Your task to perform on an android device: open app "Venmo" (install if not already installed) and enter user name: "bleedings@gmail.com" and password: "copied" Image 0: 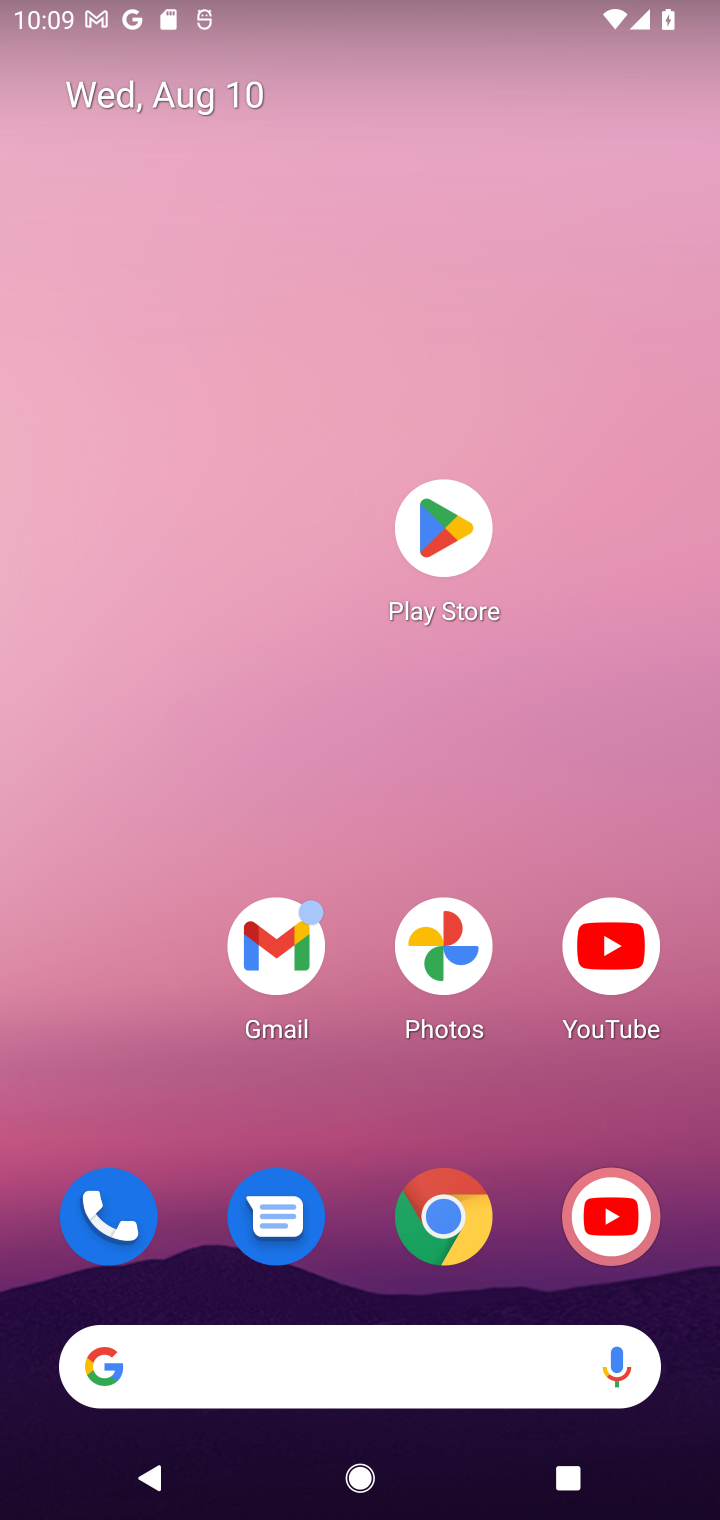
Step 0: click (446, 526)
Your task to perform on an android device: open app "Venmo" (install if not already installed) and enter user name: "bleedings@gmail.com" and password: "copied" Image 1: 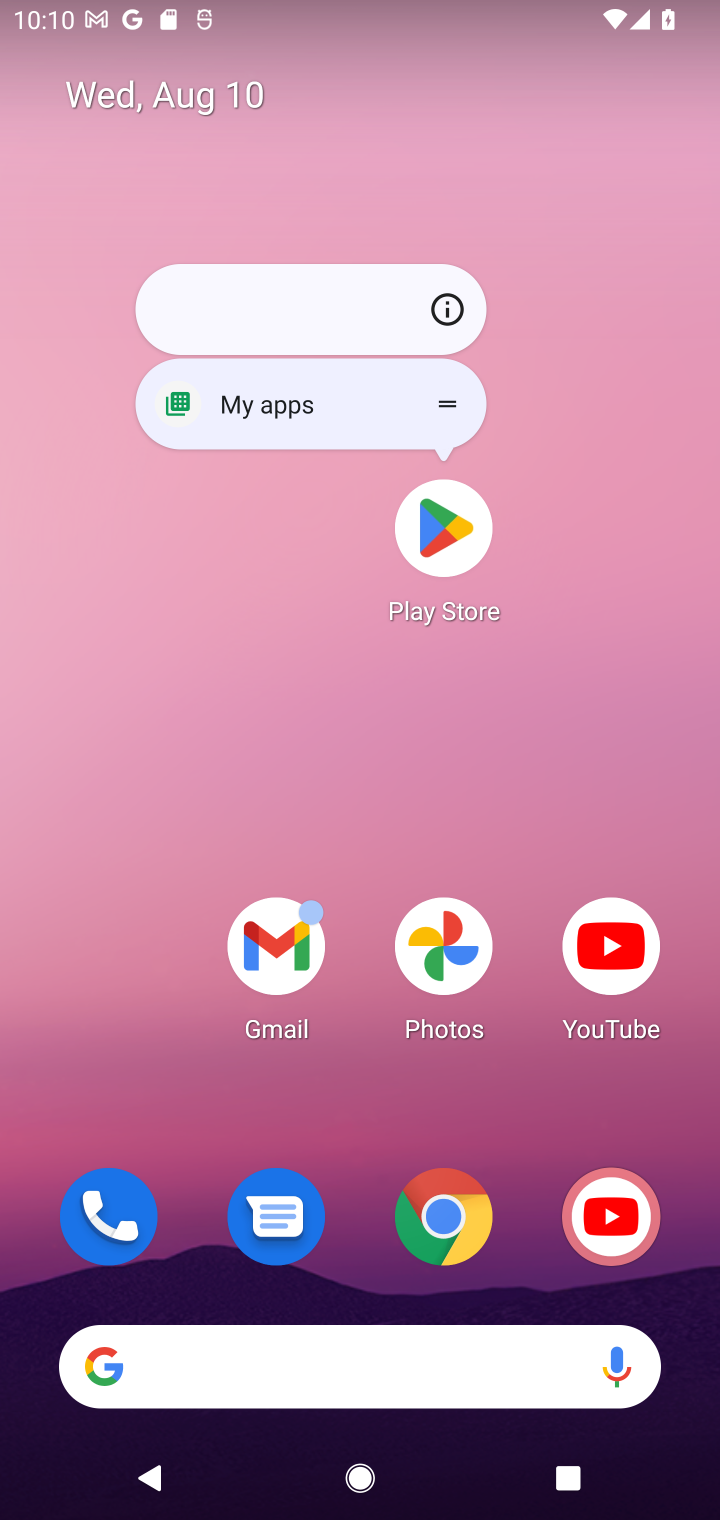
Step 1: click (446, 526)
Your task to perform on an android device: open app "Venmo" (install if not already installed) and enter user name: "bleedings@gmail.com" and password: "copied" Image 2: 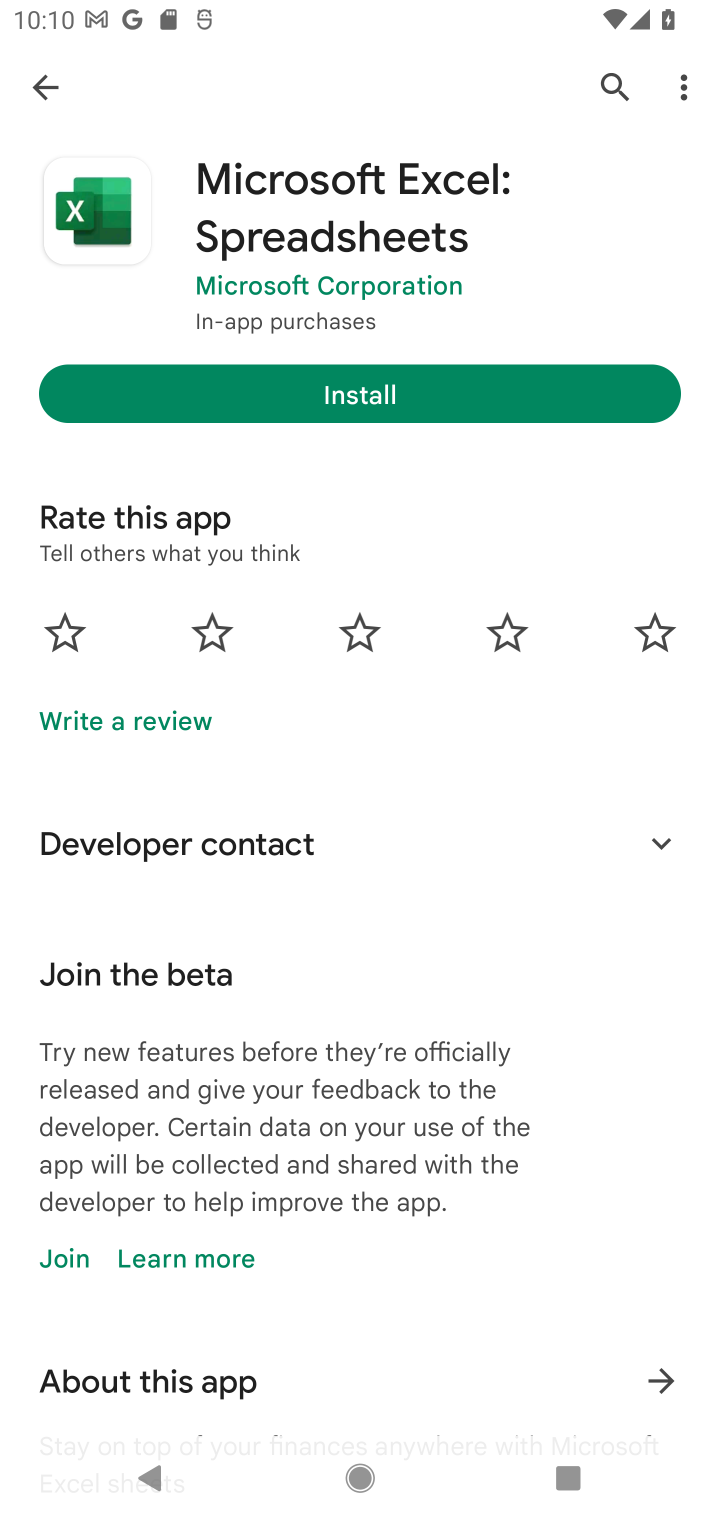
Step 2: click (607, 77)
Your task to perform on an android device: open app "Venmo" (install if not already installed) and enter user name: "bleedings@gmail.com" and password: "copied" Image 3: 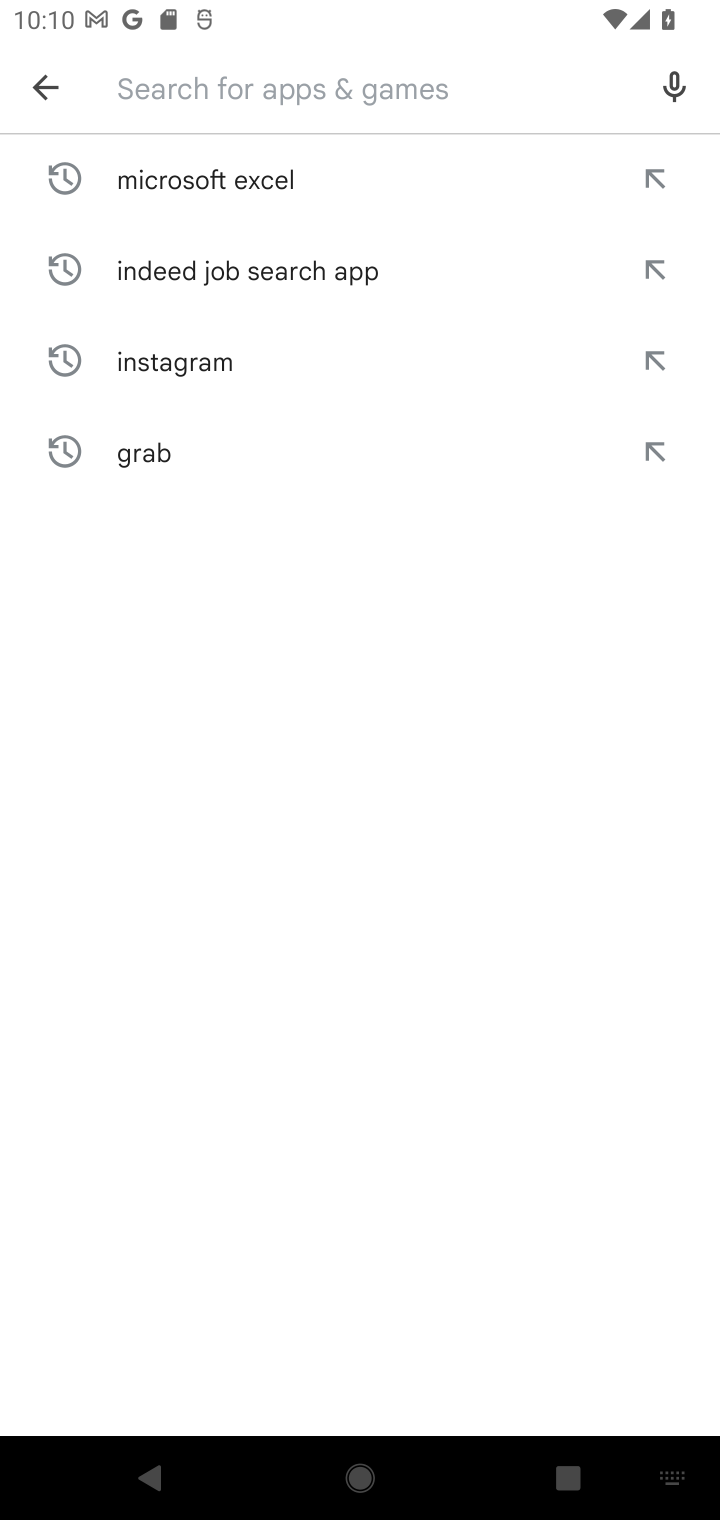
Step 3: type "Venmo"
Your task to perform on an android device: open app "Venmo" (install if not already installed) and enter user name: "bleedings@gmail.com" and password: "copied" Image 4: 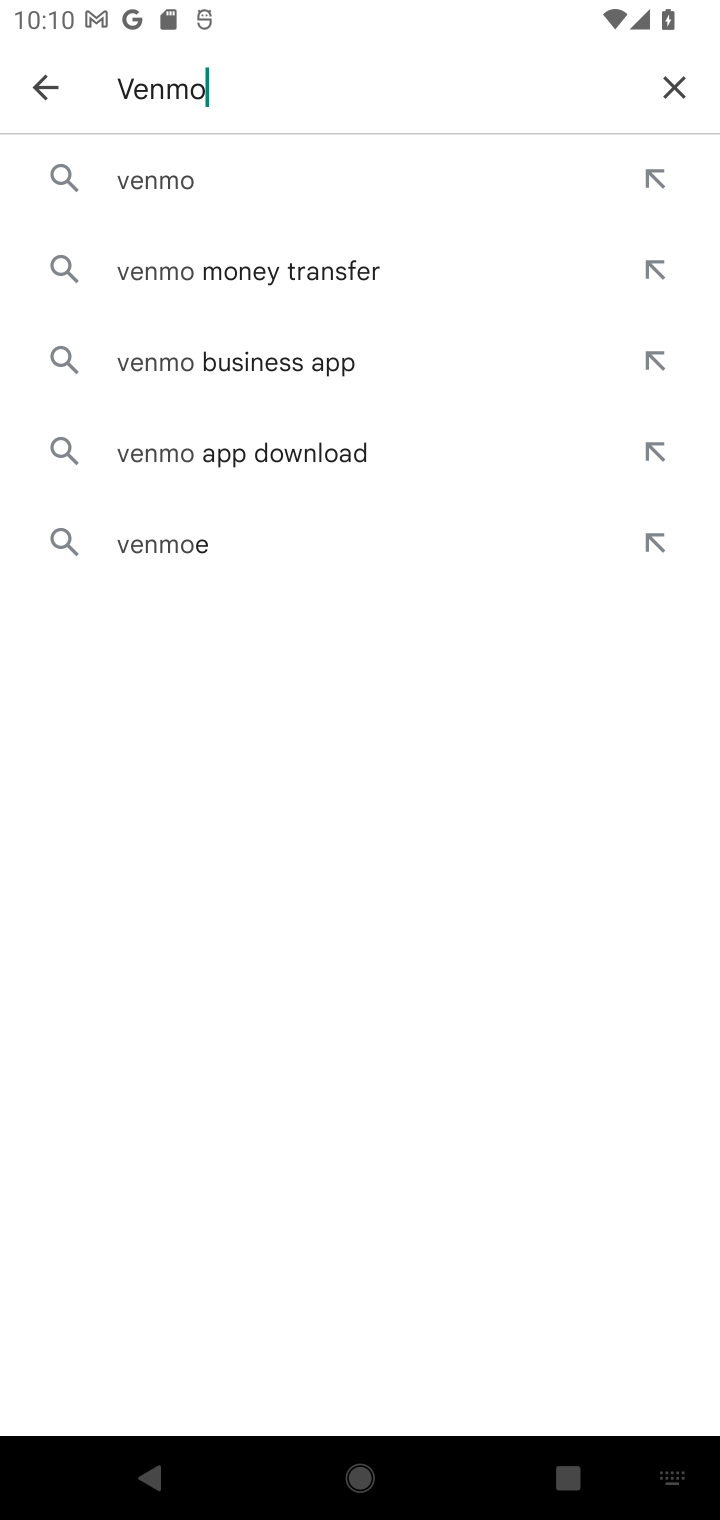
Step 4: click (180, 172)
Your task to perform on an android device: open app "Venmo" (install if not already installed) and enter user name: "bleedings@gmail.com" and password: "copied" Image 5: 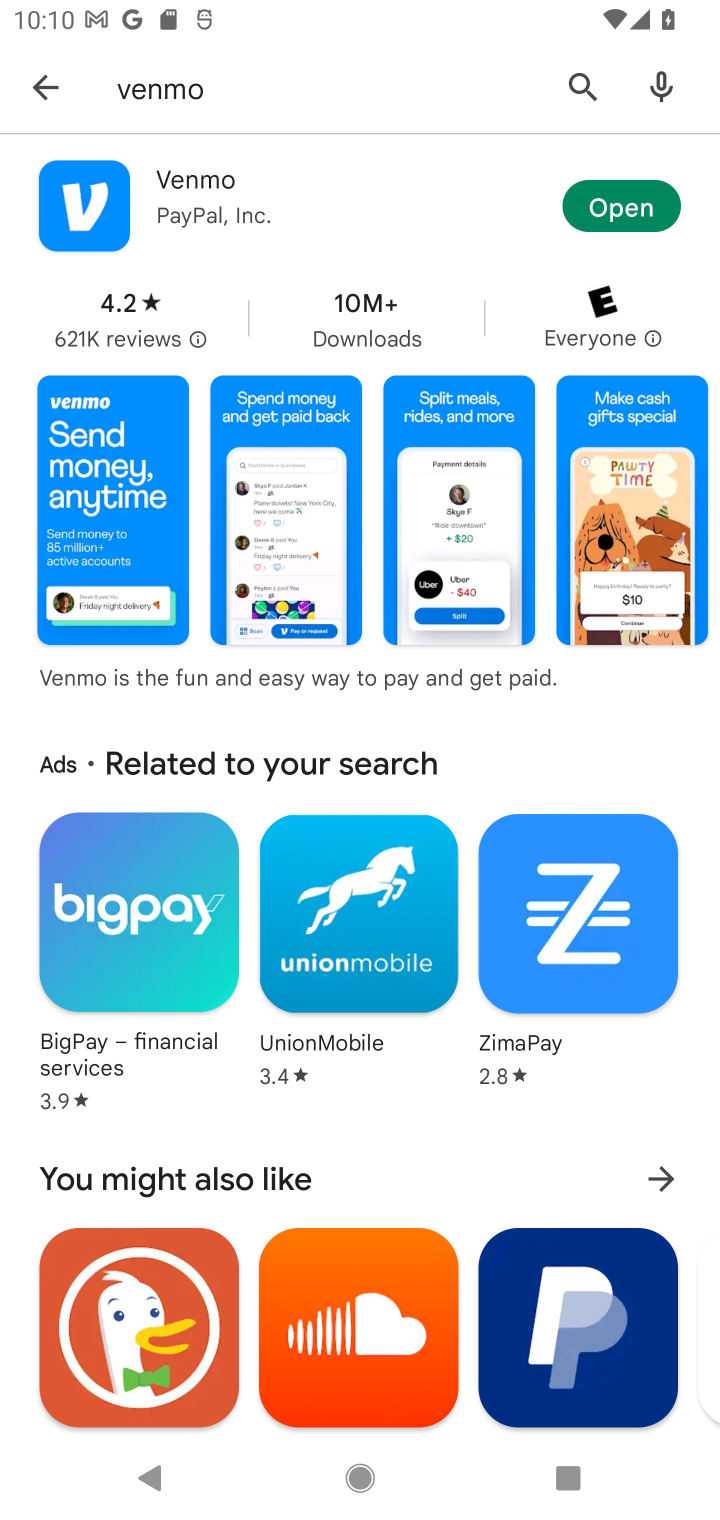
Step 5: click (618, 206)
Your task to perform on an android device: open app "Venmo" (install if not already installed) and enter user name: "bleedings@gmail.com" and password: "copied" Image 6: 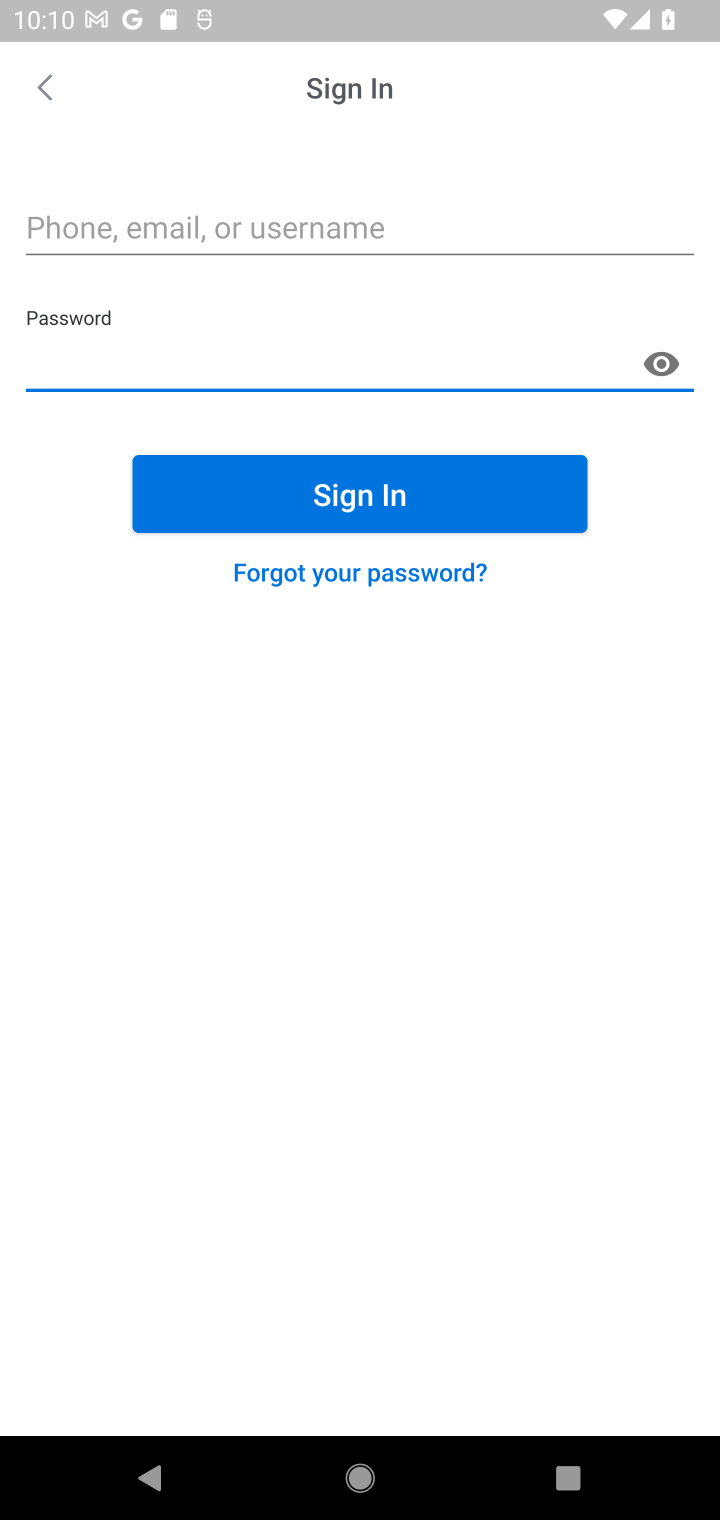
Step 6: click (129, 215)
Your task to perform on an android device: open app "Venmo" (install if not already installed) and enter user name: "bleedings@gmail.com" and password: "copied" Image 7: 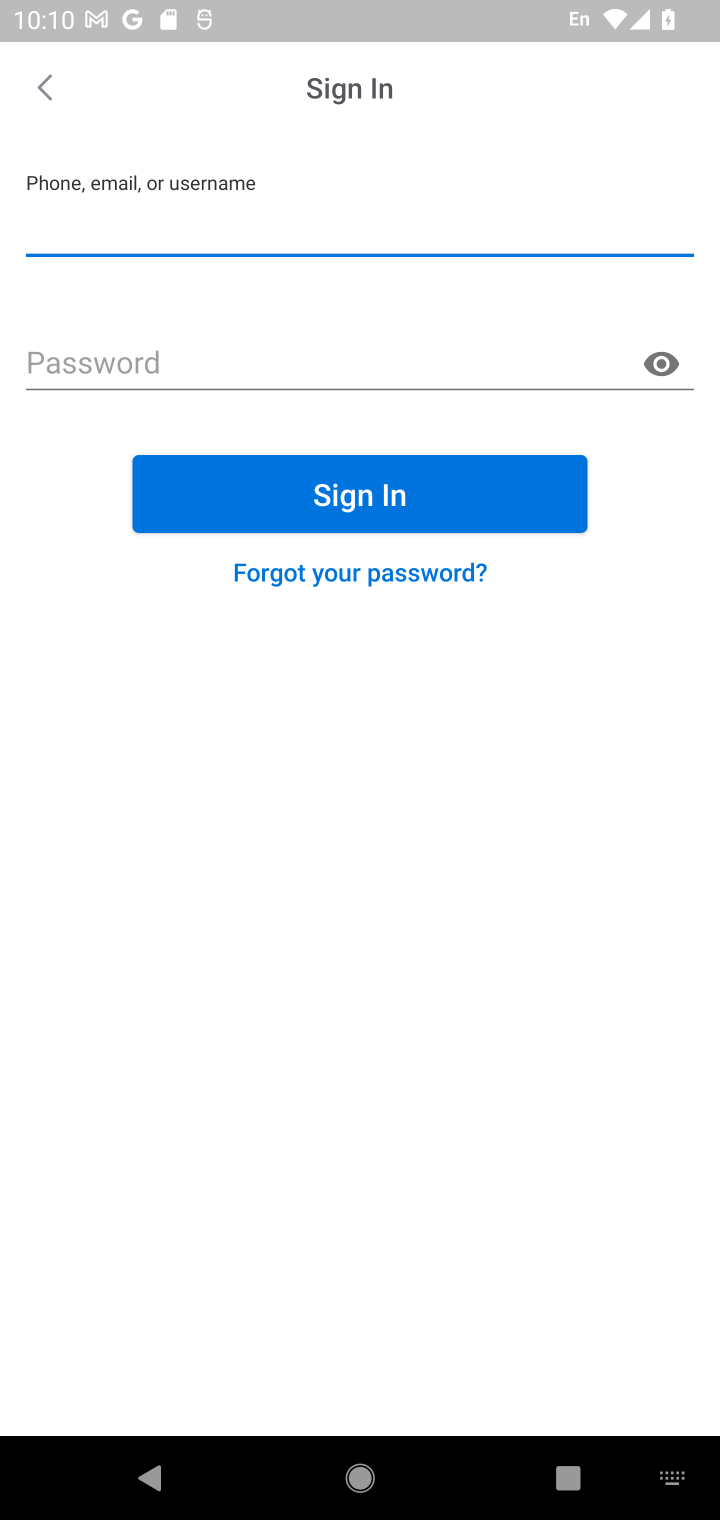
Step 7: type "bleedings@gmail.com"
Your task to perform on an android device: open app "Venmo" (install if not already installed) and enter user name: "bleedings@gmail.com" and password: "copied" Image 8: 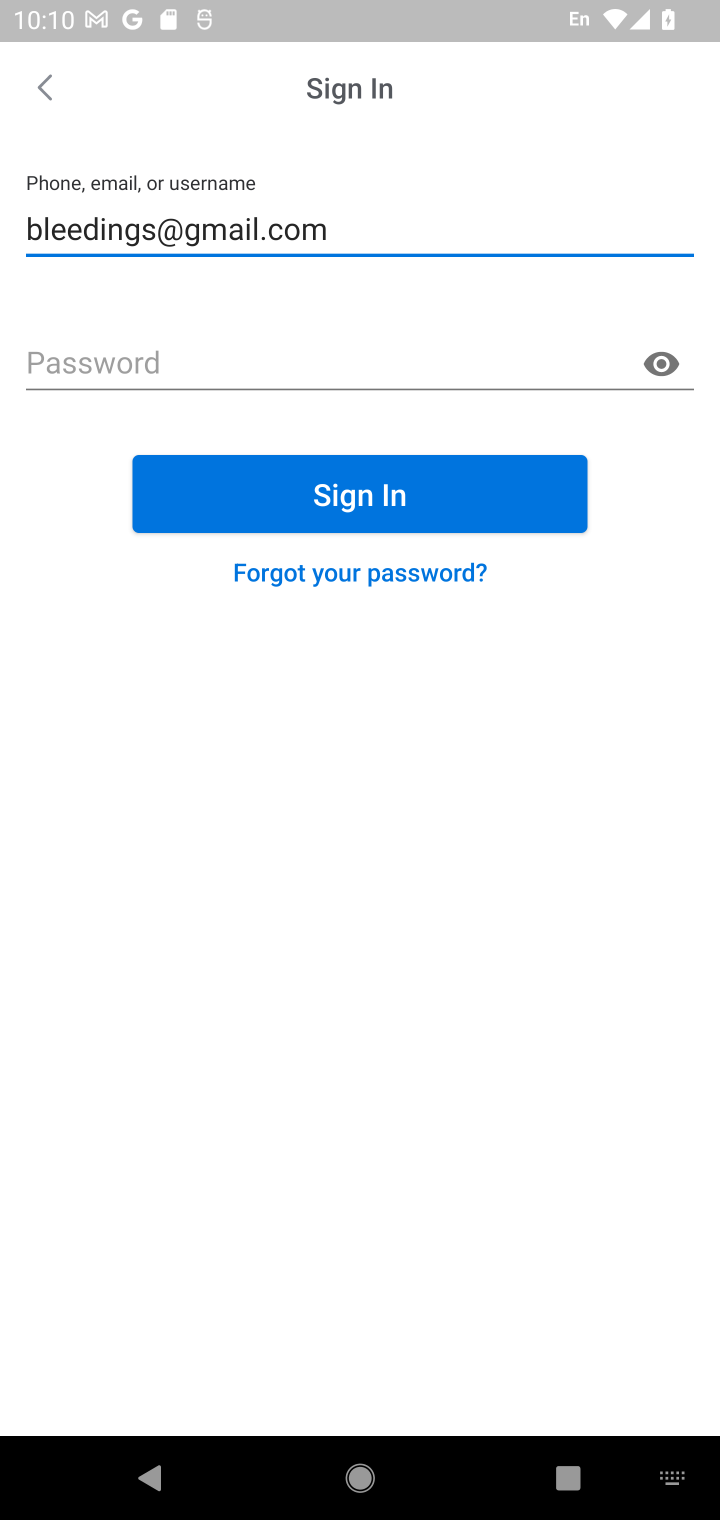
Step 8: click (74, 354)
Your task to perform on an android device: open app "Venmo" (install if not already installed) and enter user name: "bleedings@gmail.com" and password: "copied" Image 9: 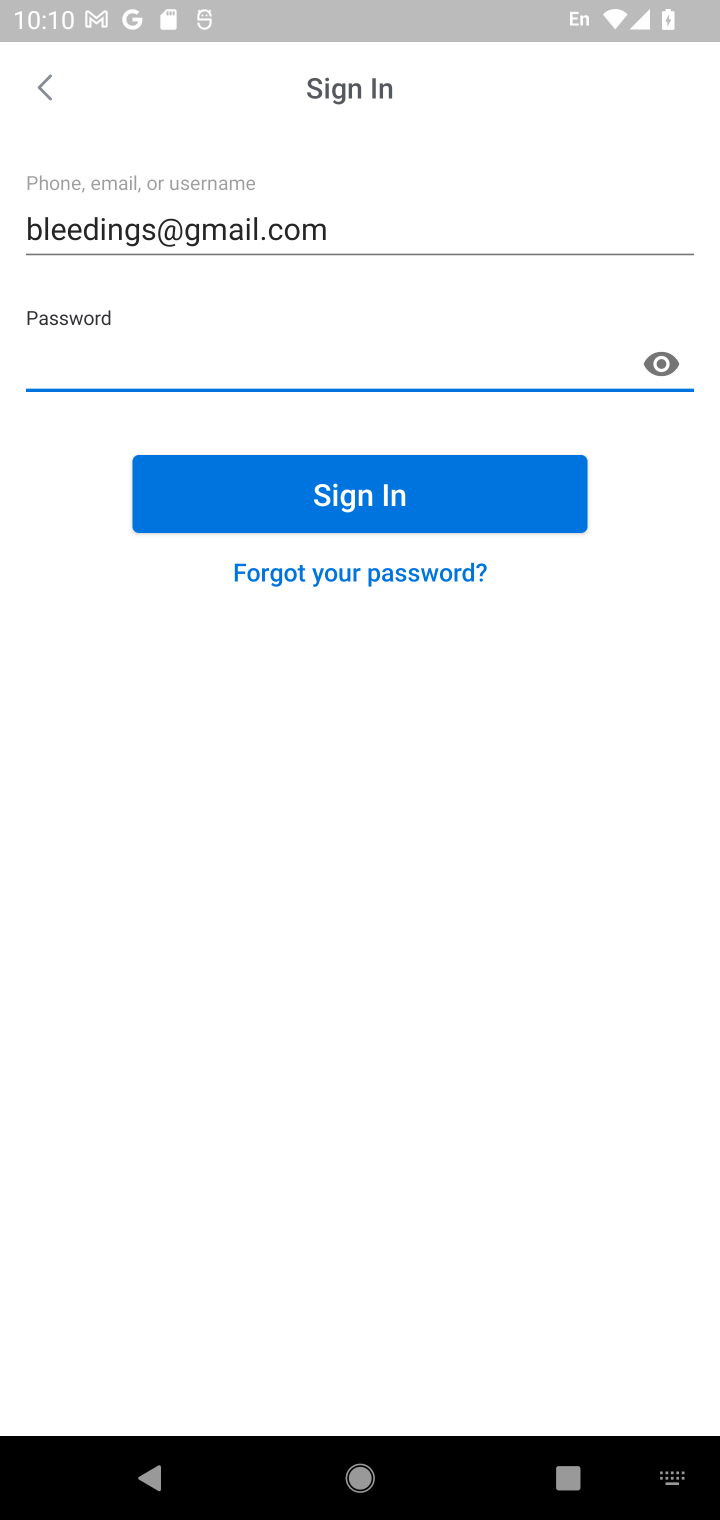
Step 9: type "copied"
Your task to perform on an android device: open app "Venmo" (install if not already installed) and enter user name: "bleedings@gmail.com" and password: "copied" Image 10: 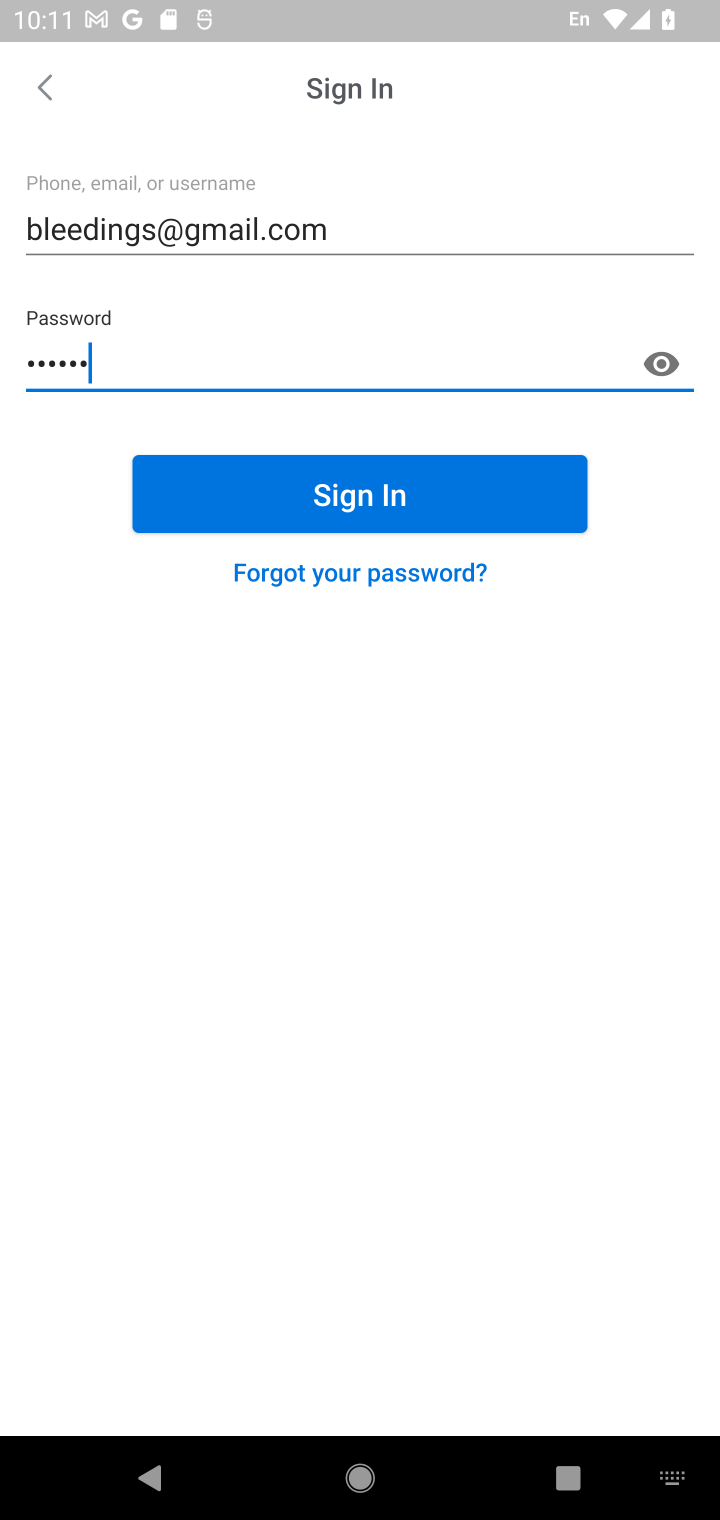
Step 10: task complete